Your task to perform on an android device: Turn on the flashlight Image 0: 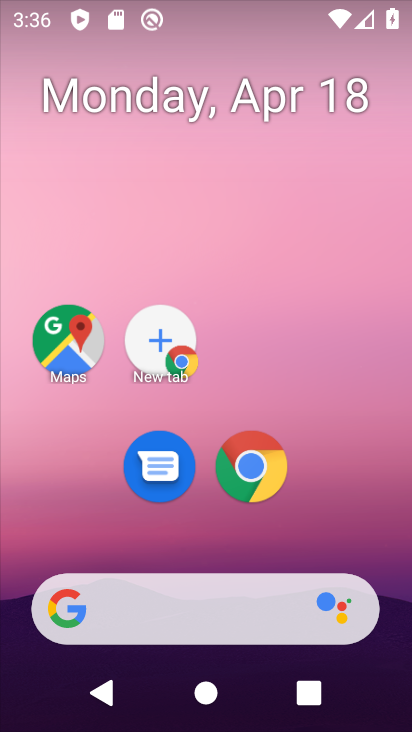
Step 0: drag from (347, 534) to (223, 12)
Your task to perform on an android device: Turn on the flashlight Image 1: 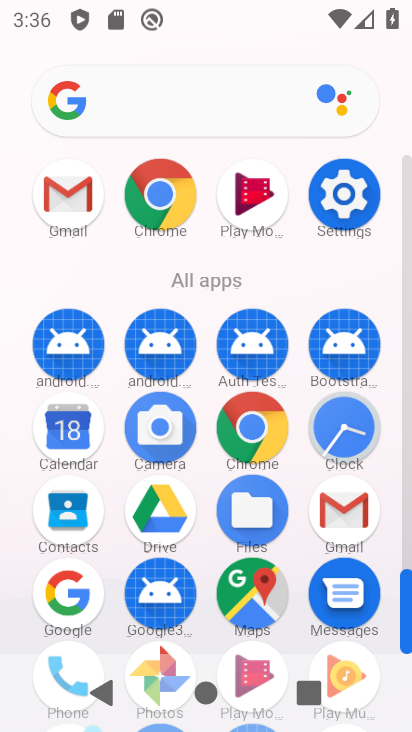
Step 1: click (349, 189)
Your task to perform on an android device: Turn on the flashlight Image 2: 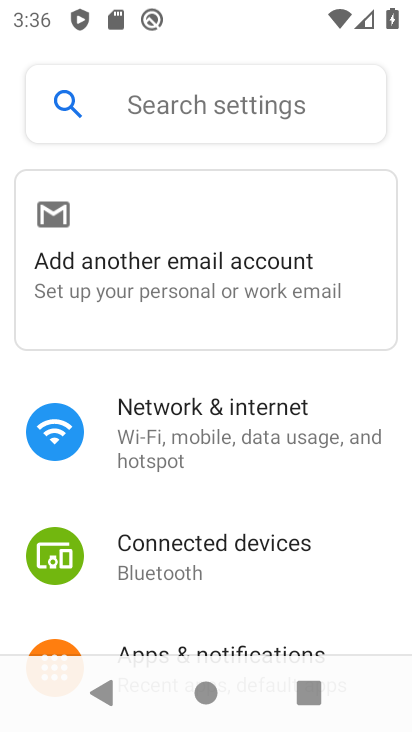
Step 2: click (310, 417)
Your task to perform on an android device: Turn on the flashlight Image 3: 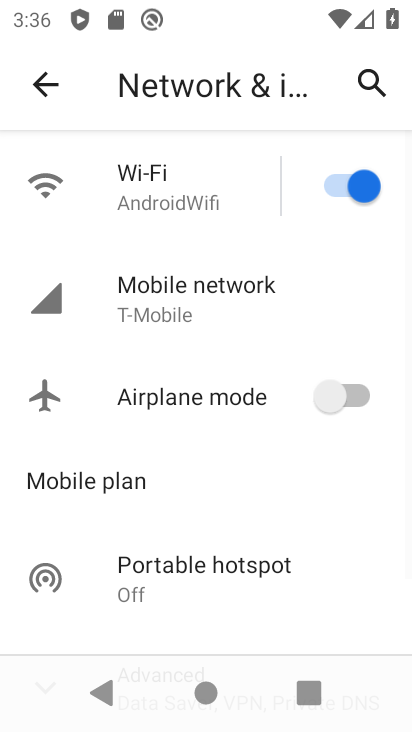
Step 3: drag from (203, 481) to (201, 162)
Your task to perform on an android device: Turn on the flashlight Image 4: 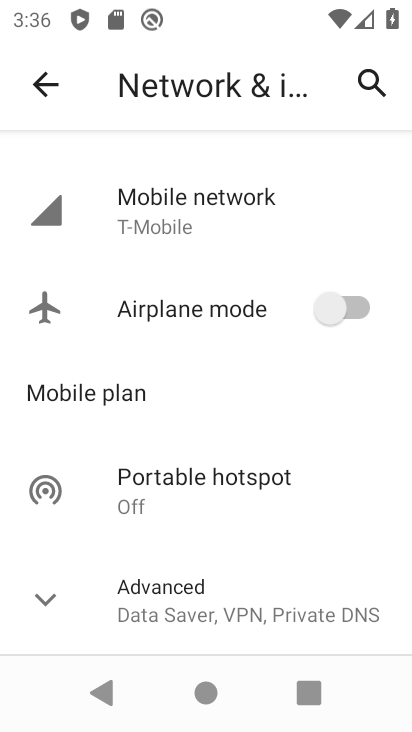
Step 4: click (26, 598)
Your task to perform on an android device: Turn on the flashlight Image 5: 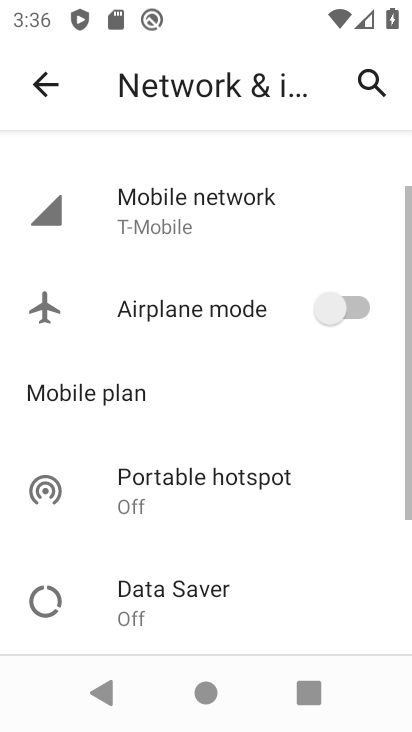
Step 5: task complete